Your task to perform on an android device: Open calendar and show me the second week of next month Image 0: 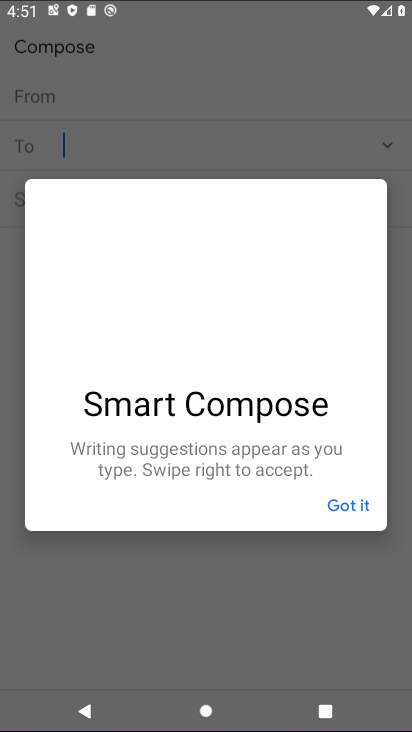
Step 0: drag from (216, 728) to (214, 320)
Your task to perform on an android device: Open calendar and show me the second week of next month Image 1: 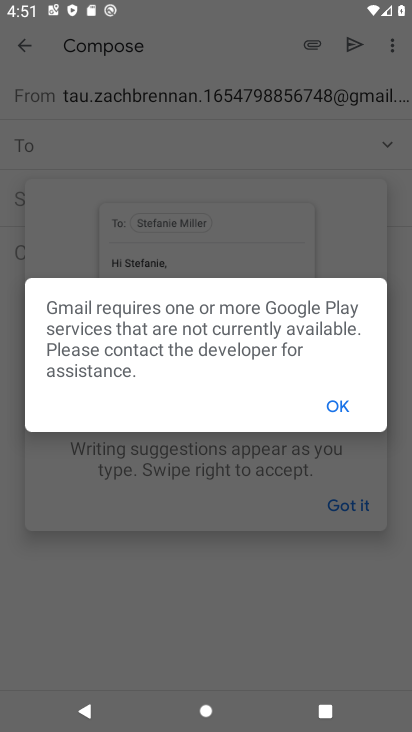
Step 1: press home button
Your task to perform on an android device: Open calendar and show me the second week of next month Image 2: 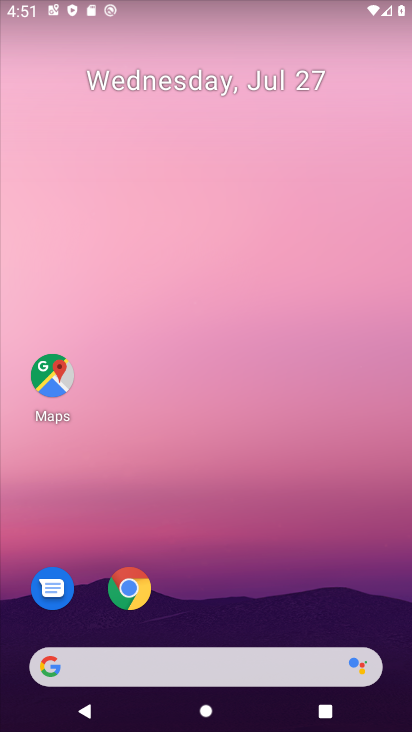
Step 2: drag from (226, 724) to (231, 158)
Your task to perform on an android device: Open calendar and show me the second week of next month Image 3: 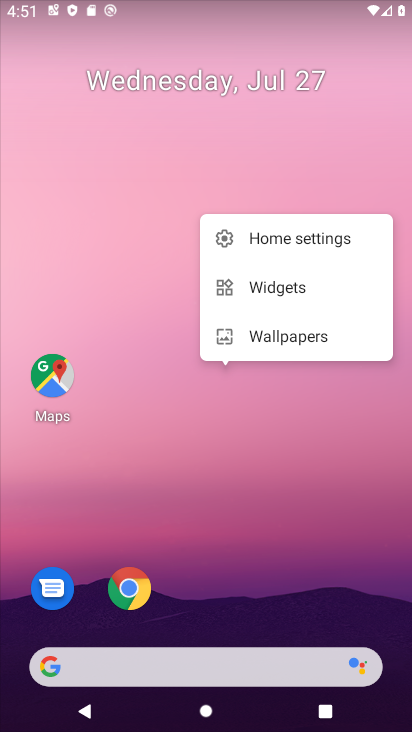
Step 3: click (205, 515)
Your task to perform on an android device: Open calendar and show me the second week of next month Image 4: 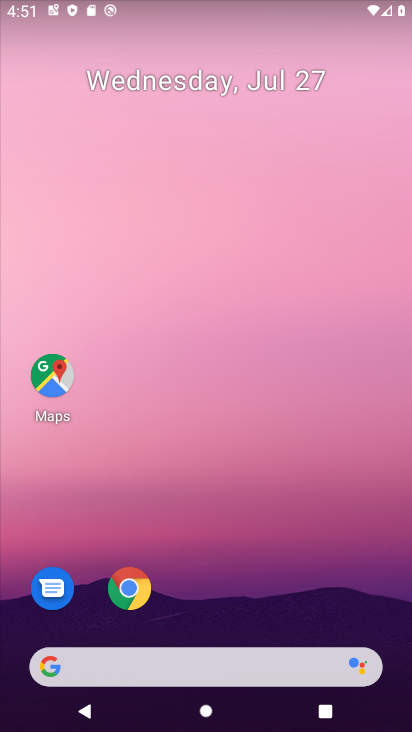
Step 4: drag from (222, 729) to (233, 107)
Your task to perform on an android device: Open calendar and show me the second week of next month Image 5: 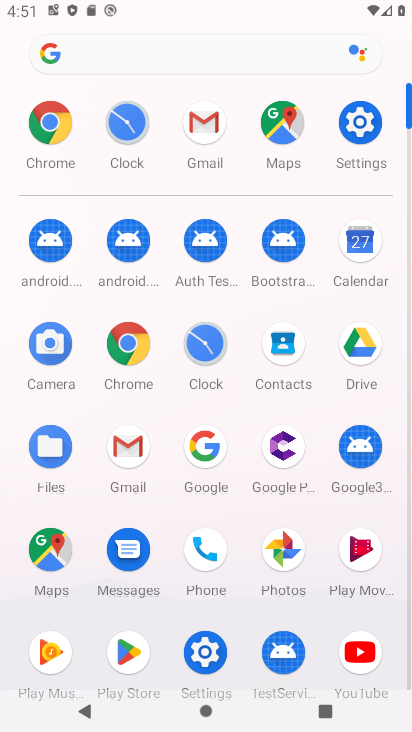
Step 5: click (347, 252)
Your task to perform on an android device: Open calendar and show me the second week of next month Image 6: 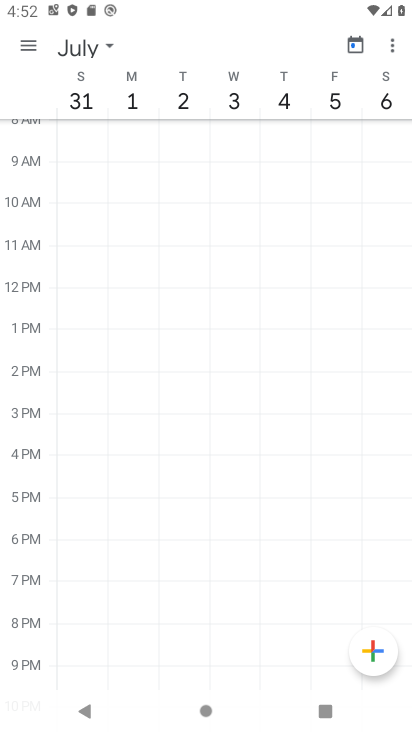
Step 6: click (107, 45)
Your task to perform on an android device: Open calendar and show me the second week of next month Image 7: 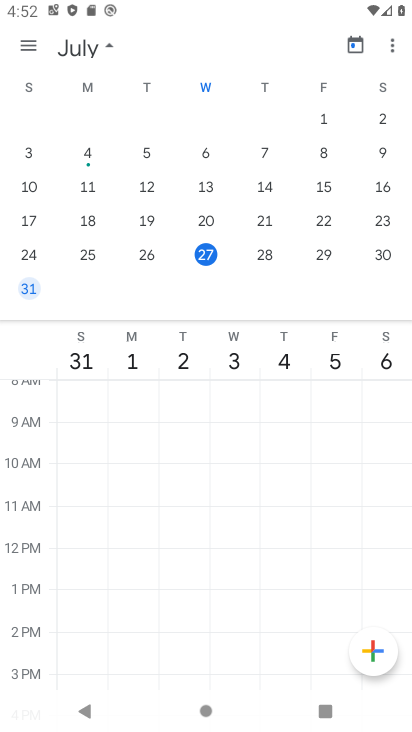
Step 7: drag from (306, 205) to (126, 189)
Your task to perform on an android device: Open calendar and show me the second week of next month Image 8: 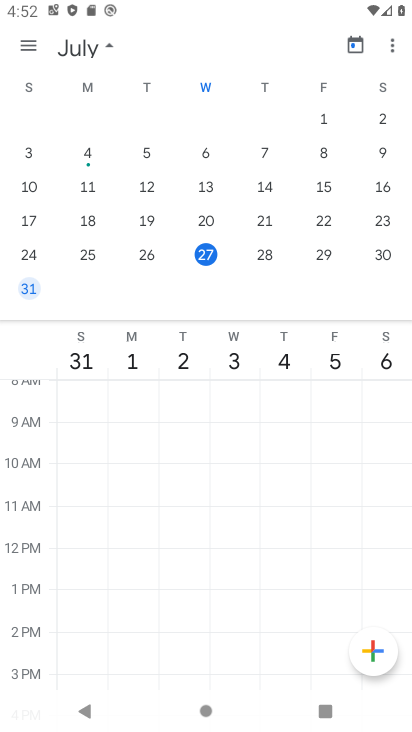
Step 8: drag from (361, 182) to (120, 170)
Your task to perform on an android device: Open calendar and show me the second week of next month Image 9: 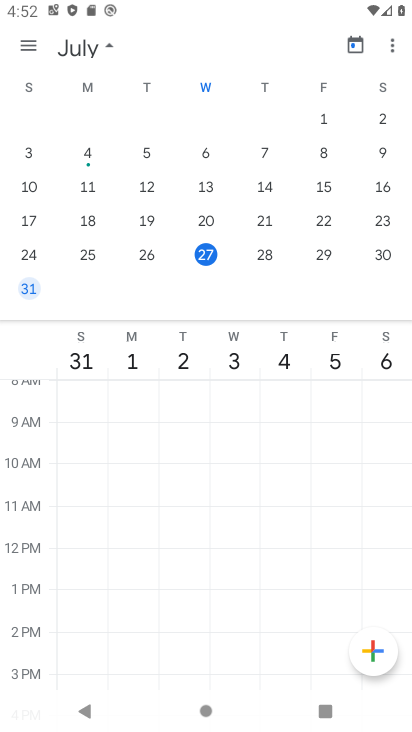
Step 9: drag from (360, 157) to (57, 153)
Your task to perform on an android device: Open calendar and show me the second week of next month Image 10: 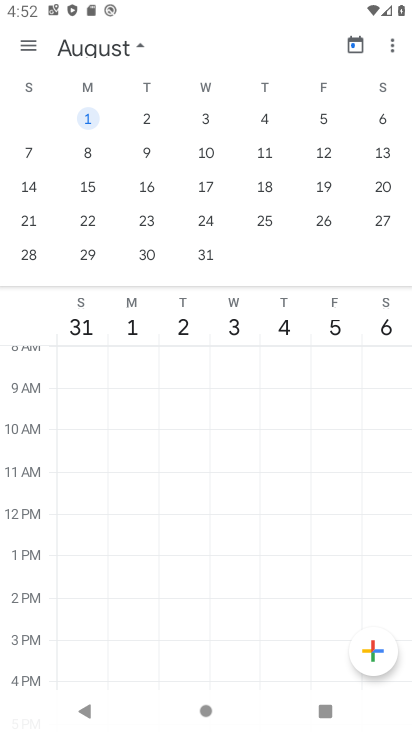
Step 10: click (86, 152)
Your task to perform on an android device: Open calendar and show me the second week of next month Image 11: 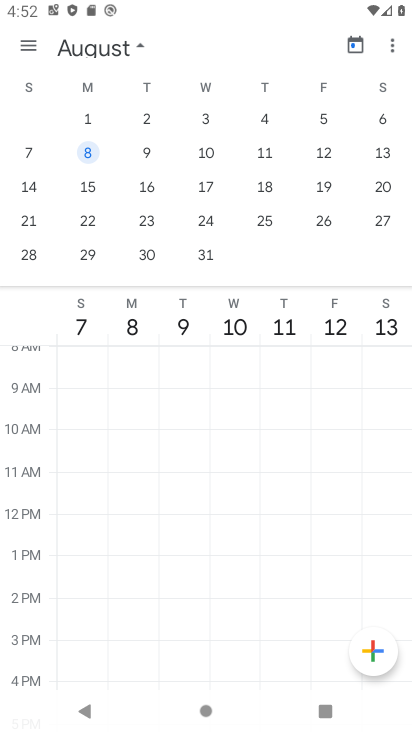
Step 11: click (28, 44)
Your task to perform on an android device: Open calendar and show me the second week of next month Image 12: 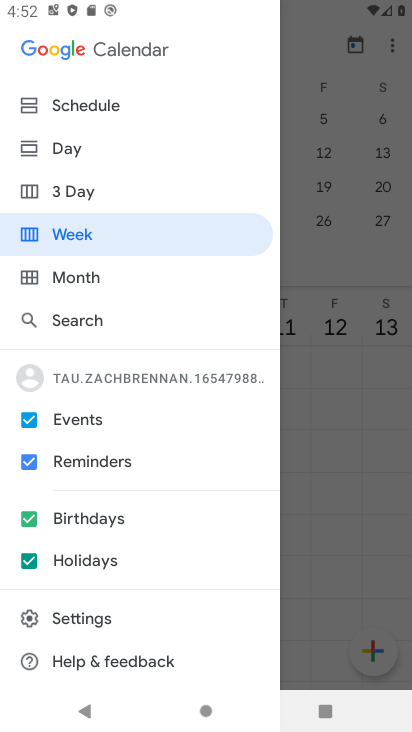
Step 12: click (76, 225)
Your task to perform on an android device: Open calendar and show me the second week of next month Image 13: 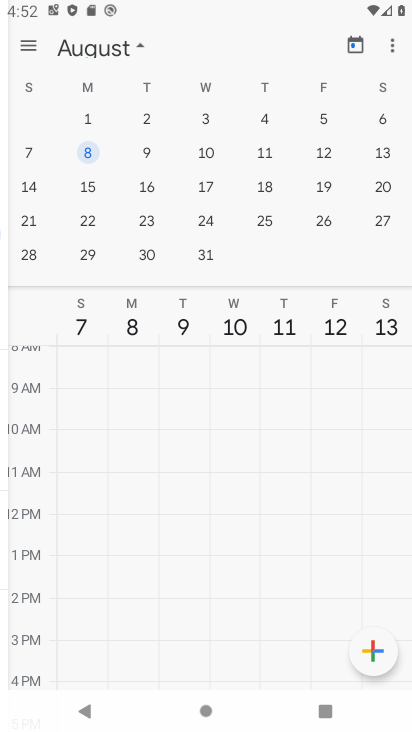
Step 13: task complete